Your task to perform on an android device: What's on my calendar tomorrow? Image 0: 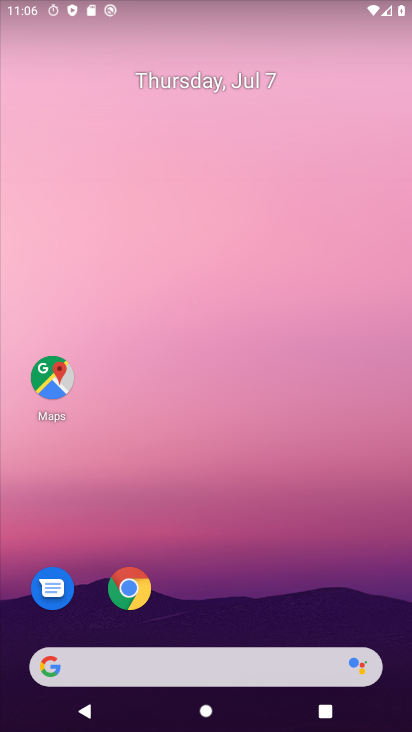
Step 0: drag from (269, 564) to (251, 80)
Your task to perform on an android device: What's on my calendar tomorrow? Image 1: 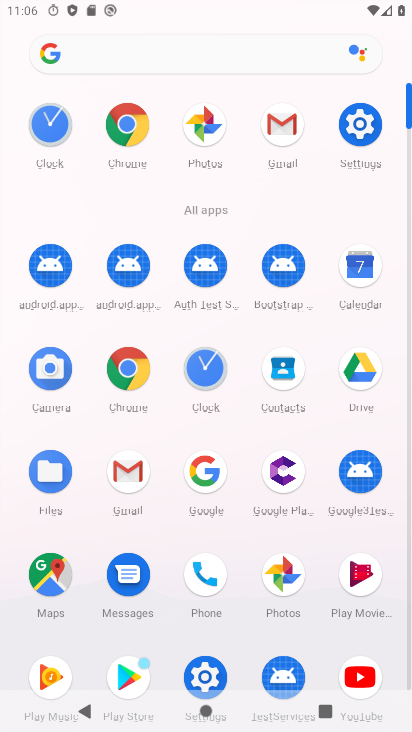
Step 1: click (362, 266)
Your task to perform on an android device: What's on my calendar tomorrow? Image 2: 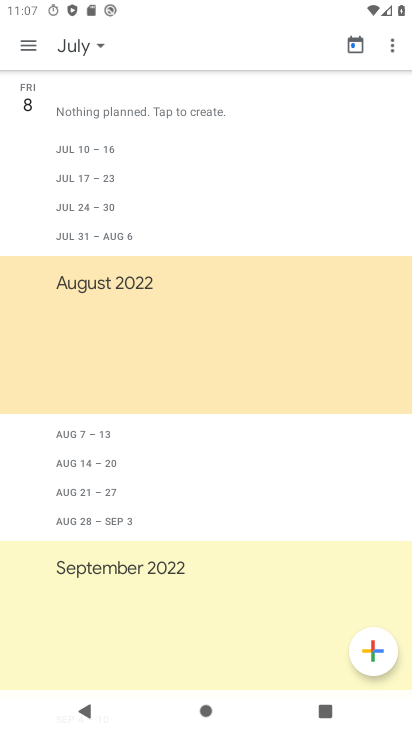
Step 2: task complete